Your task to perform on an android device: What's the news? Image 0: 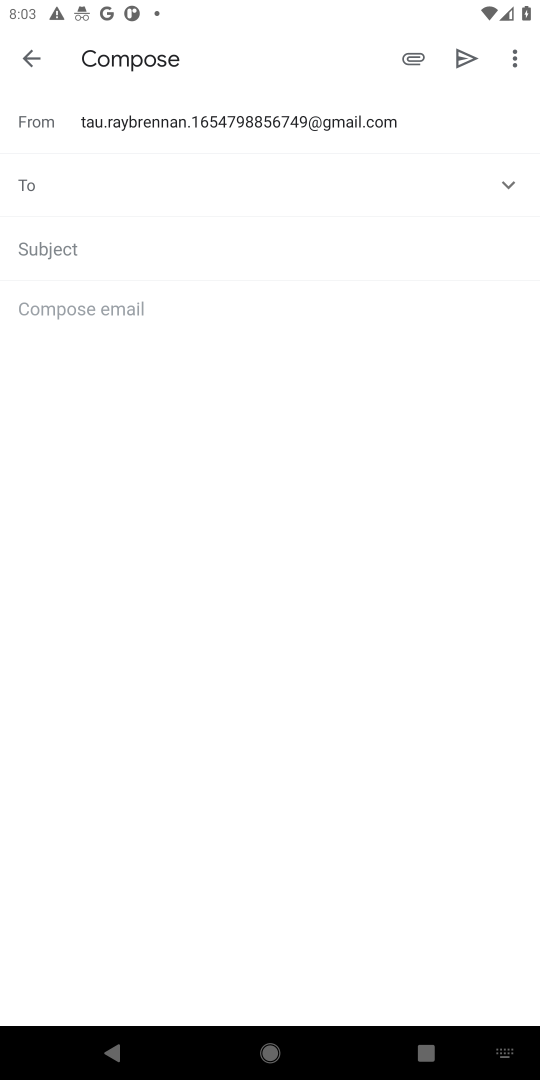
Step 0: press home button
Your task to perform on an android device: What's the news? Image 1: 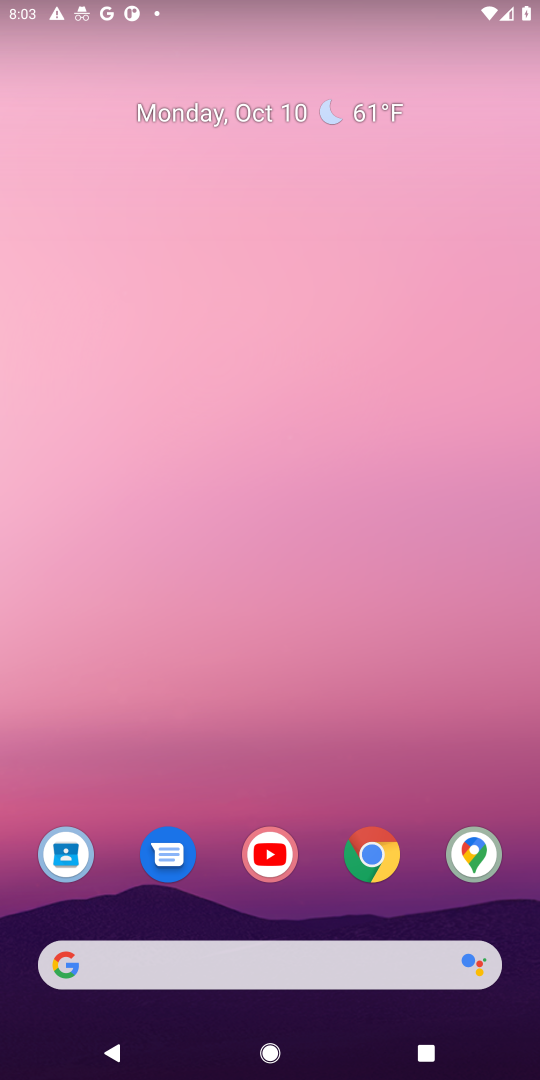
Step 1: click (378, 857)
Your task to perform on an android device: What's the news? Image 2: 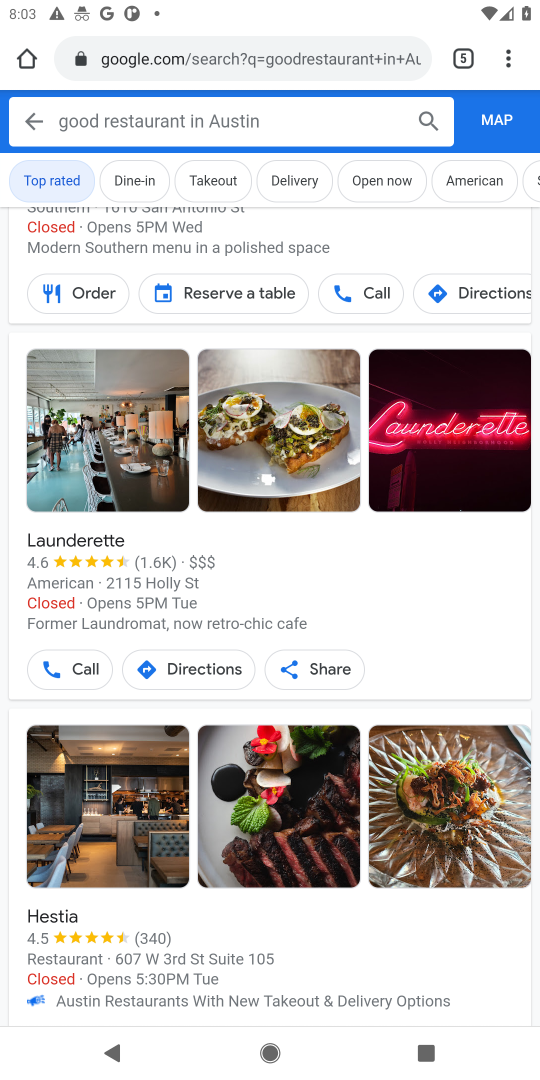
Step 2: click (343, 59)
Your task to perform on an android device: What's the news? Image 3: 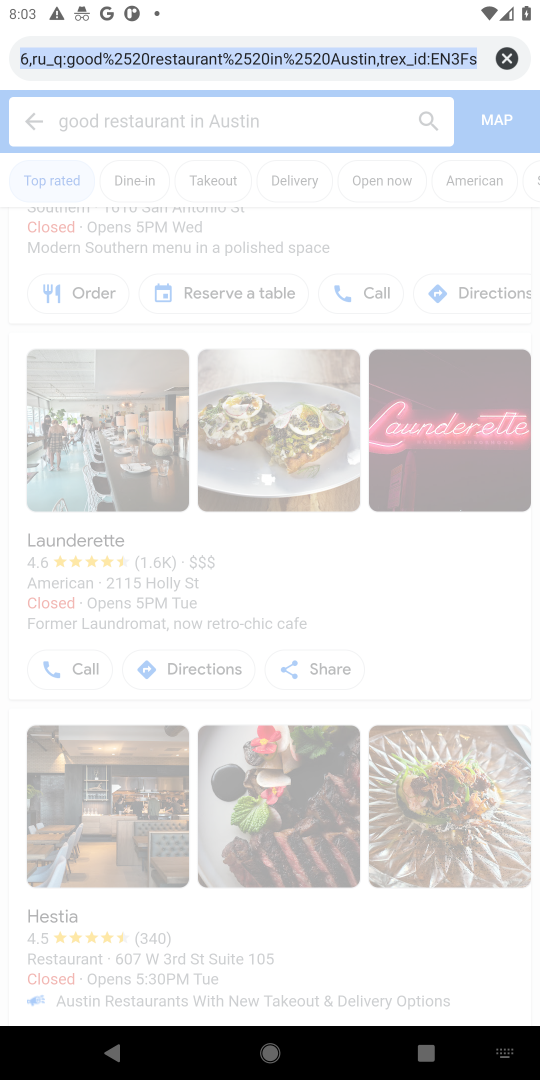
Step 3: click (502, 57)
Your task to perform on an android device: What's the news? Image 4: 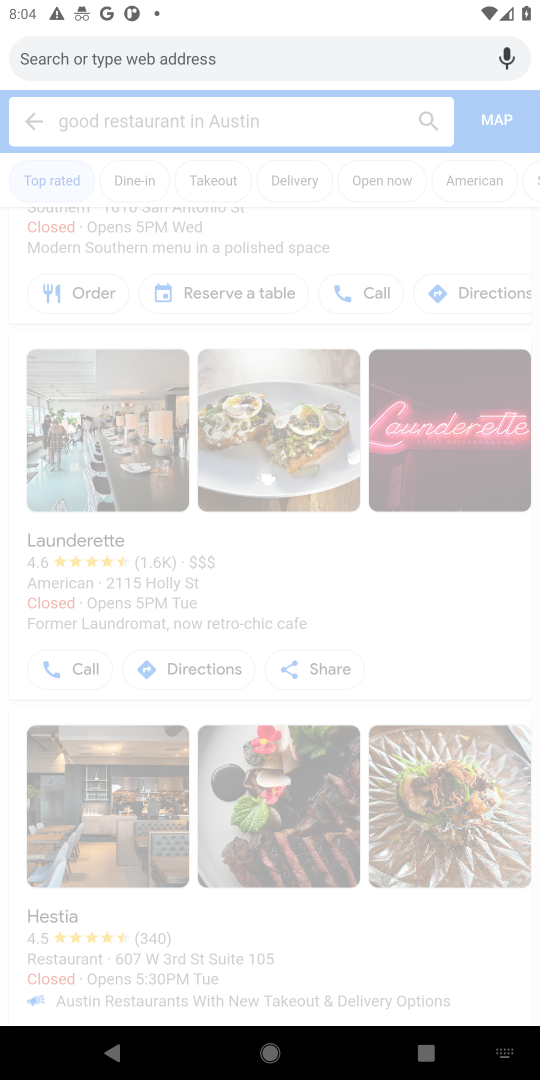
Step 4: type "What's the news"
Your task to perform on an android device: What's the news? Image 5: 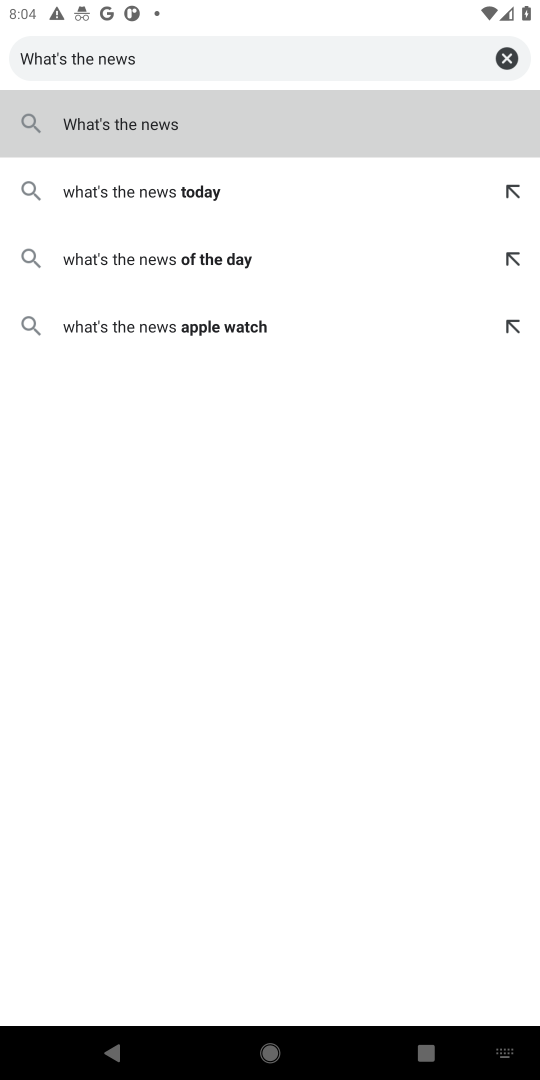
Step 5: press enter
Your task to perform on an android device: What's the news? Image 6: 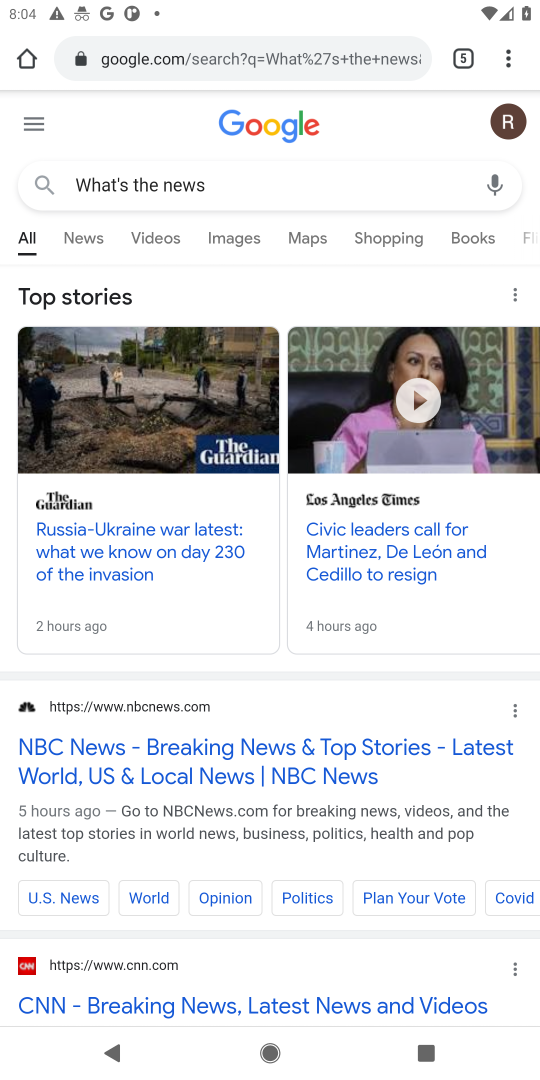
Step 6: task complete